Your task to perform on an android device: Open the web browser Image 0: 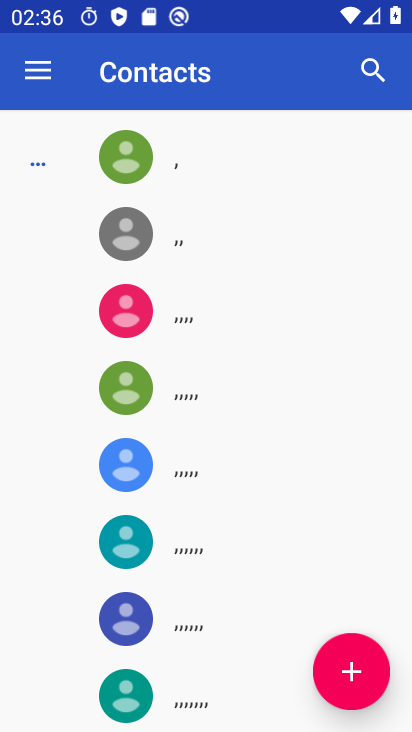
Step 0: press home button
Your task to perform on an android device: Open the web browser Image 1: 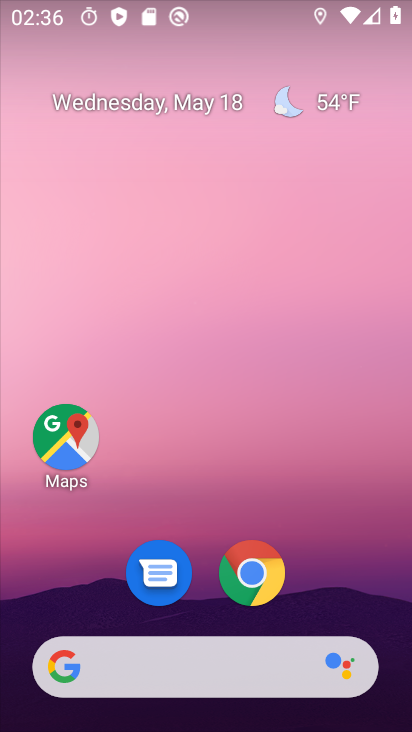
Step 1: click (238, 583)
Your task to perform on an android device: Open the web browser Image 2: 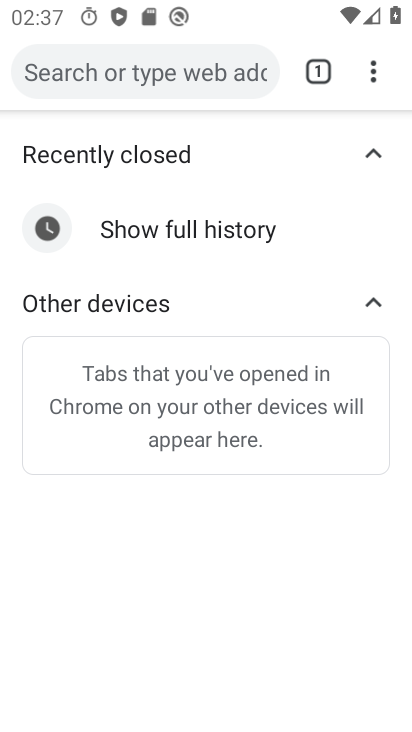
Step 2: task complete